Your task to perform on an android device: Go to network settings Image 0: 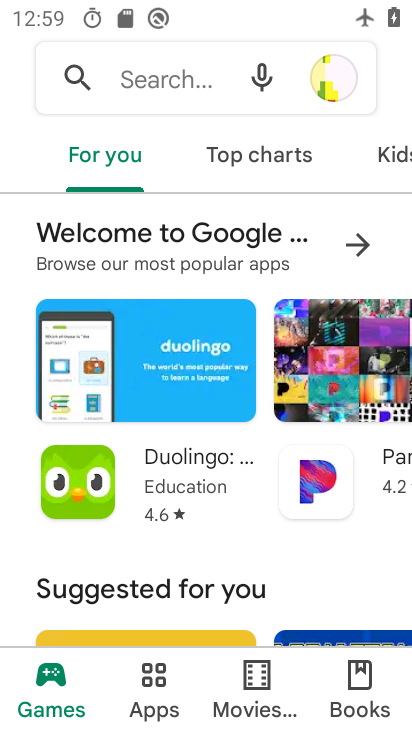
Step 0: press home button
Your task to perform on an android device: Go to network settings Image 1: 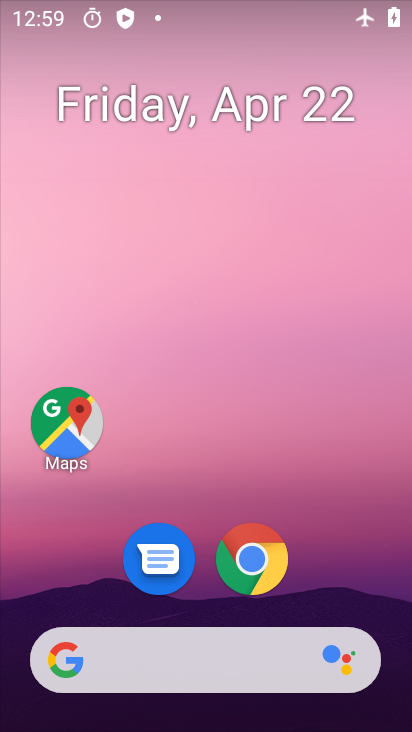
Step 1: drag from (360, 491) to (343, 172)
Your task to perform on an android device: Go to network settings Image 2: 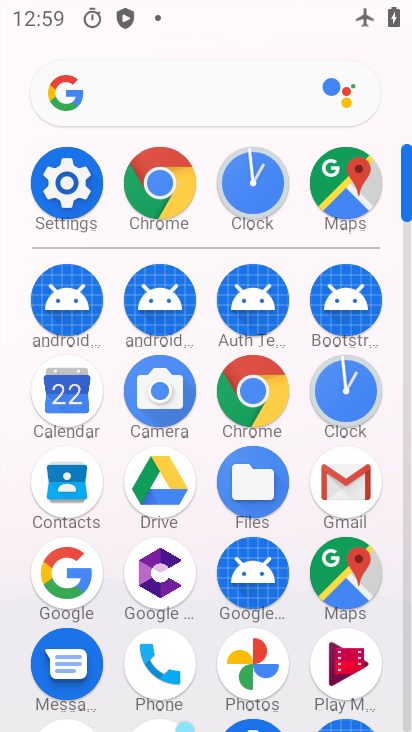
Step 2: click (73, 195)
Your task to perform on an android device: Go to network settings Image 3: 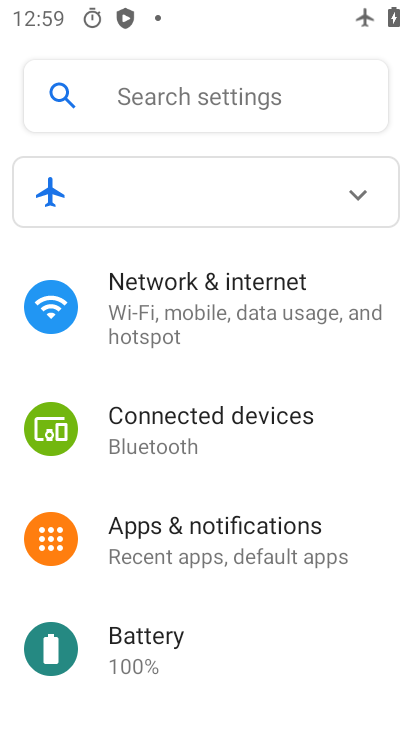
Step 3: drag from (367, 552) to (370, 408)
Your task to perform on an android device: Go to network settings Image 4: 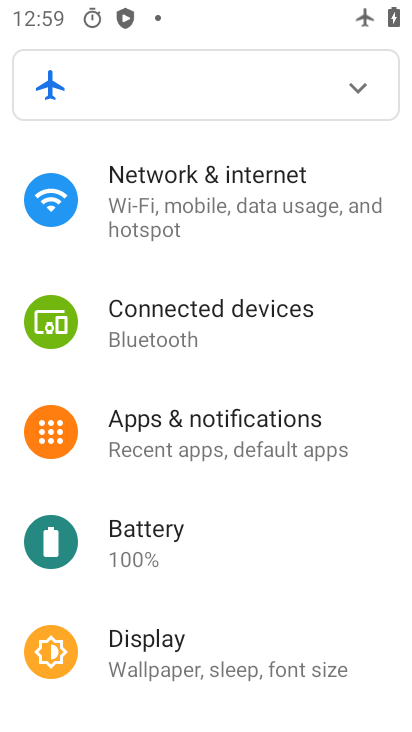
Step 4: drag from (367, 573) to (365, 400)
Your task to perform on an android device: Go to network settings Image 5: 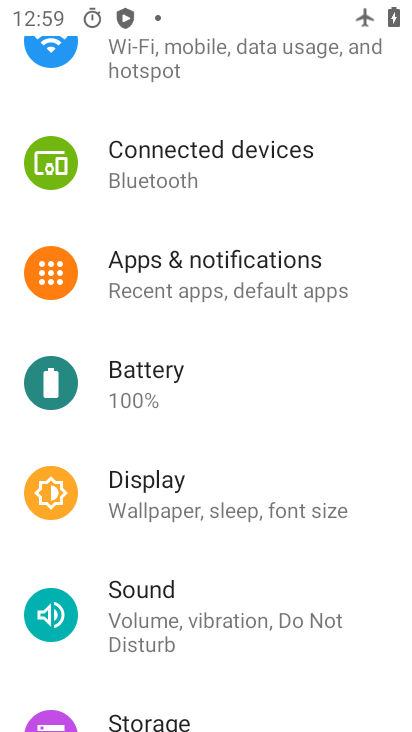
Step 5: drag from (373, 569) to (393, 406)
Your task to perform on an android device: Go to network settings Image 6: 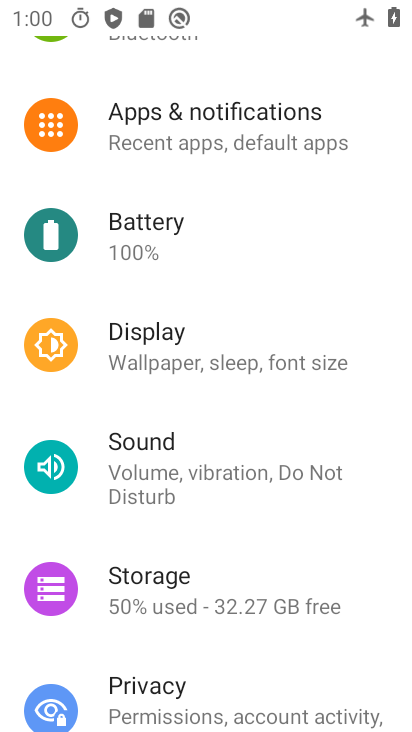
Step 6: drag from (381, 616) to (374, 443)
Your task to perform on an android device: Go to network settings Image 7: 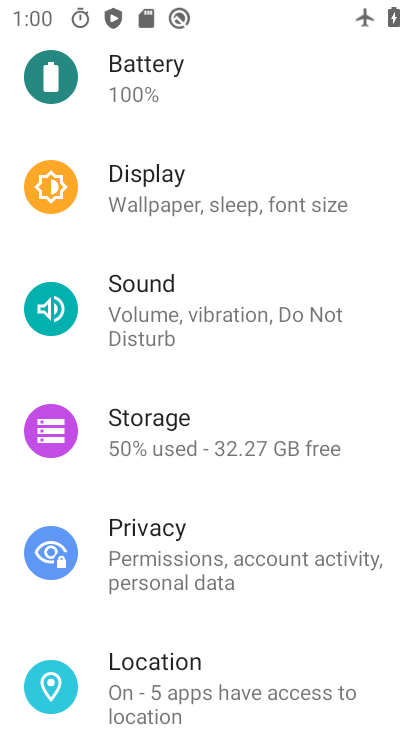
Step 7: drag from (354, 627) to (356, 466)
Your task to perform on an android device: Go to network settings Image 8: 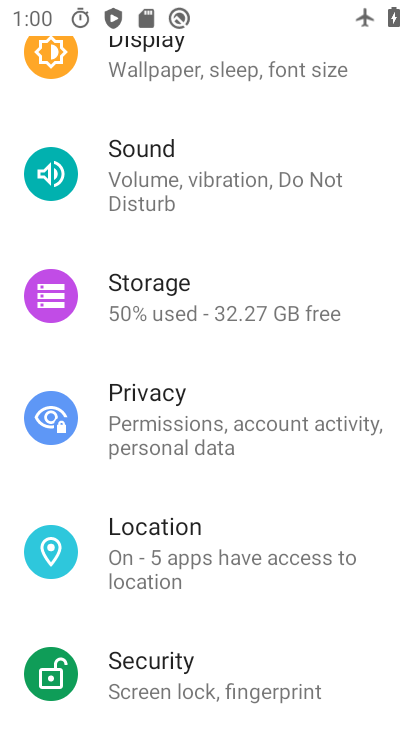
Step 8: drag from (358, 622) to (369, 475)
Your task to perform on an android device: Go to network settings Image 9: 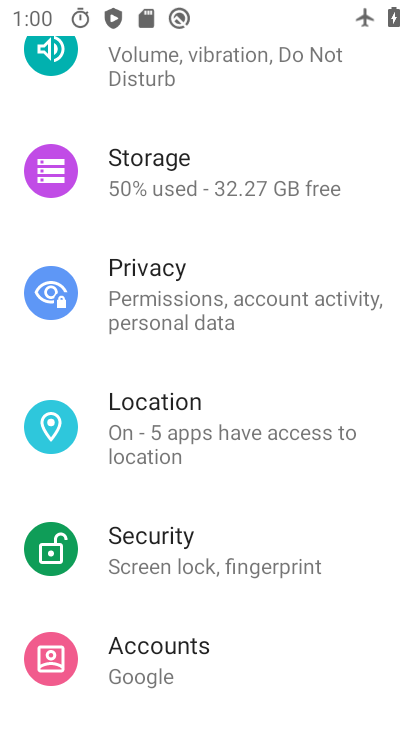
Step 9: drag from (363, 603) to (381, 431)
Your task to perform on an android device: Go to network settings Image 10: 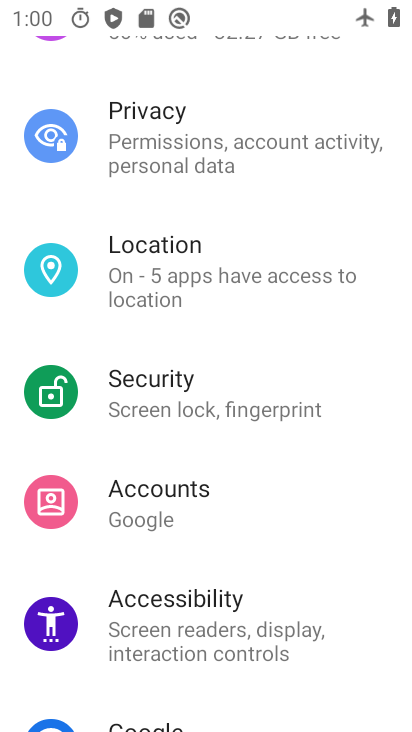
Step 10: drag from (342, 654) to (355, 487)
Your task to perform on an android device: Go to network settings Image 11: 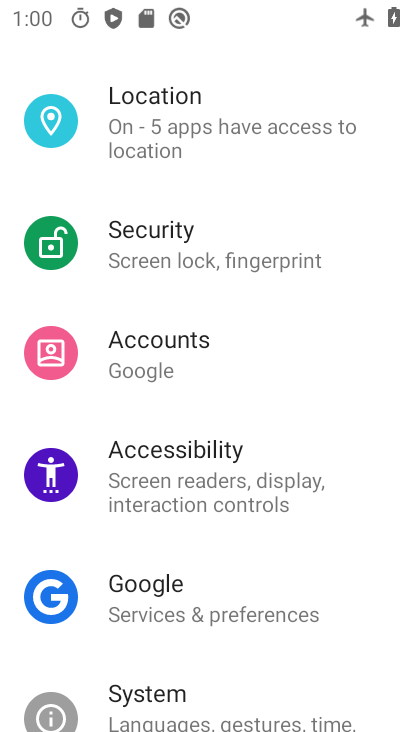
Step 11: drag from (368, 305) to (365, 462)
Your task to perform on an android device: Go to network settings Image 12: 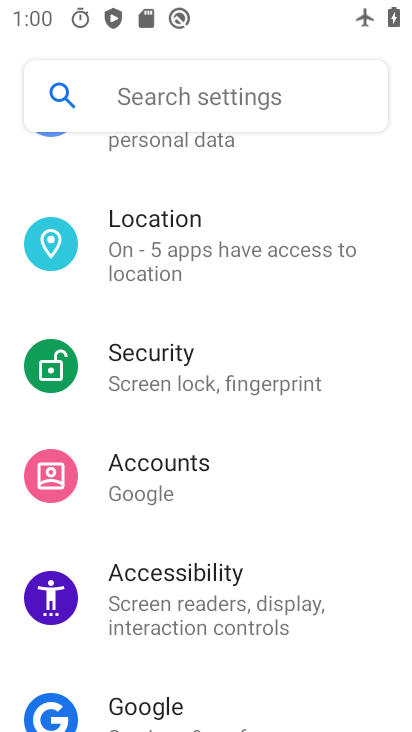
Step 12: drag from (367, 317) to (362, 455)
Your task to perform on an android device: Go to network settings Image 13: 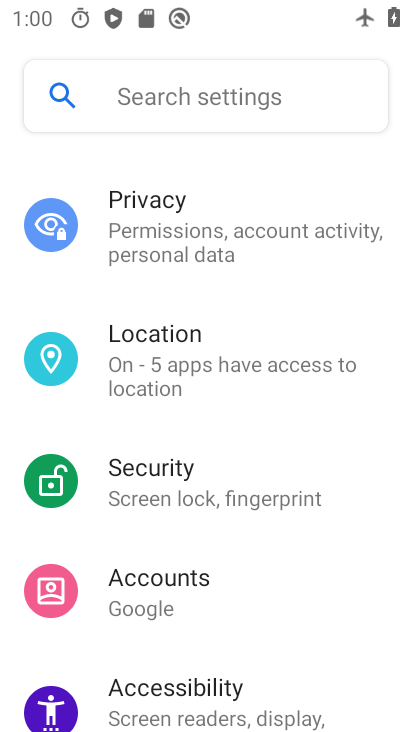
Step 13: drag from (377, 310) to (360, 480)
Your task to perform on an android device: Go to network settings Image 14: 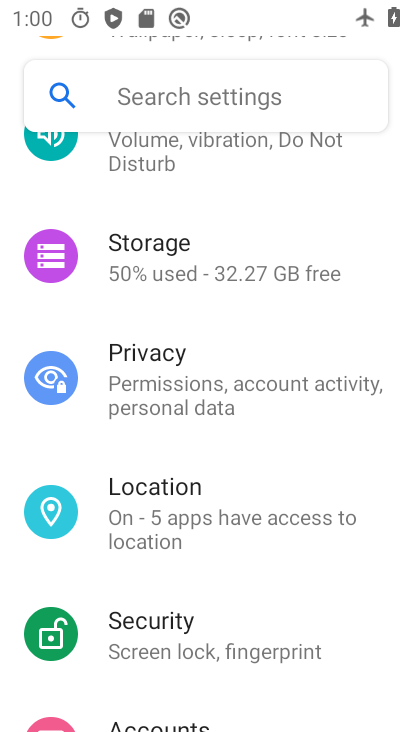
Step 14: drag from (367, 289) to (366, 453)
Your task to perform on an android device: Go to network settings Image 15: 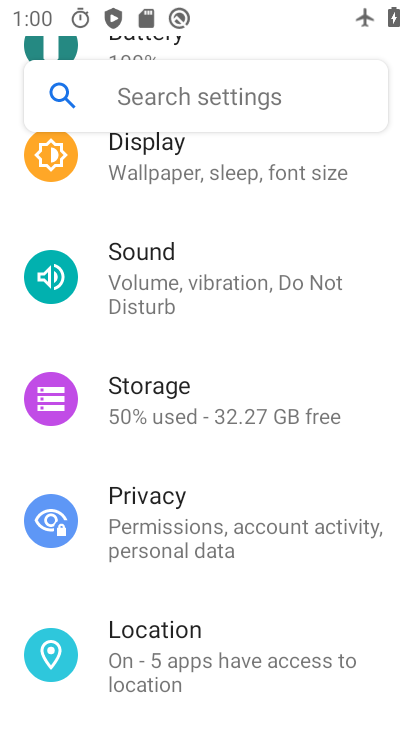
Step 15: drag from (378, 279) to (361, 434)
Your task to perform on an android device: Go to network settings Image 16: 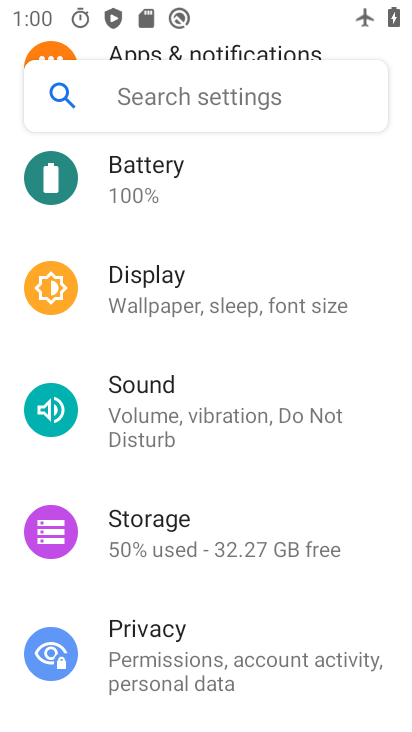
Step 16: drag from (376, 303) to (365, 460)
Your task to perform on an android device: Go to network settings Image 17: 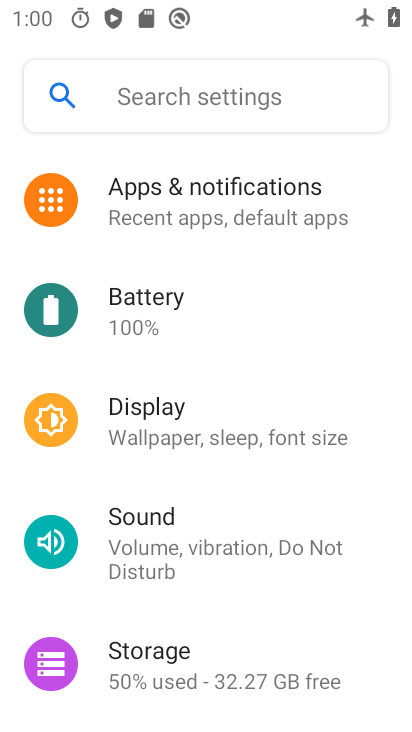
Step 17: drag from (365, 296) to (355, 463)
Your task to perform on an android device: Go to network settings Image 18: 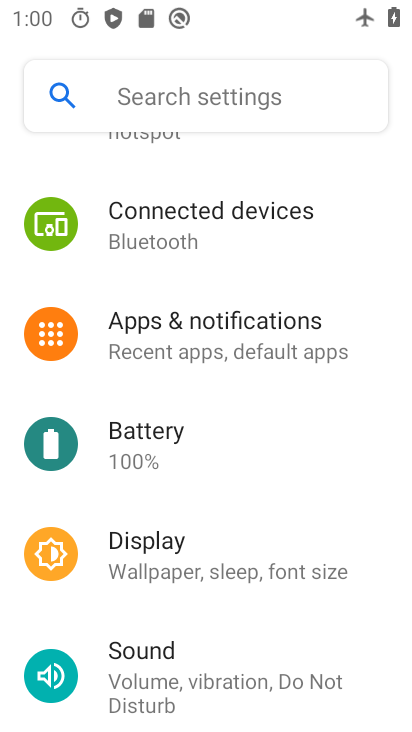
Step 18: drag from (364, 259) to (369, 442)
Your task to perform on an android device: Go to network settings Image 19: 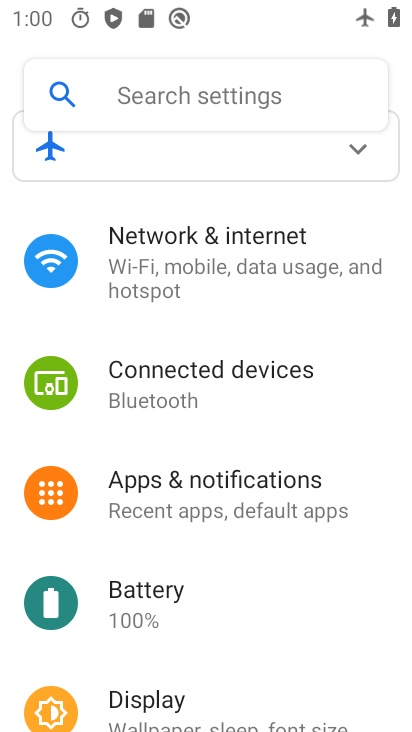
Step 19: click (295, 252)
Your task to perform on an android device: Go to network settings Image 20: 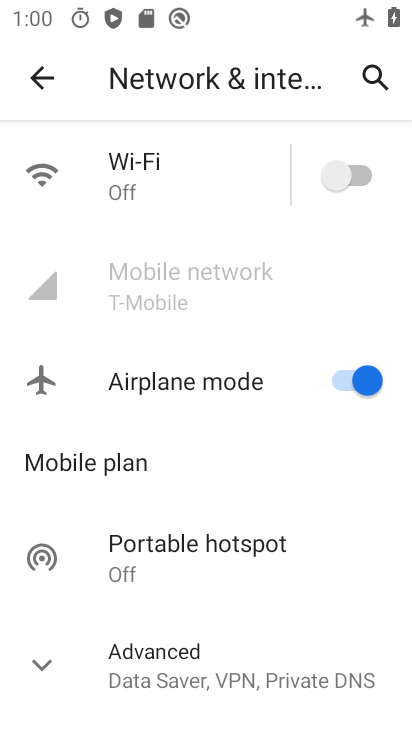
Step 20: task complete